Your task to perform on an android device: turn off javascript in the chrome app Image 0: 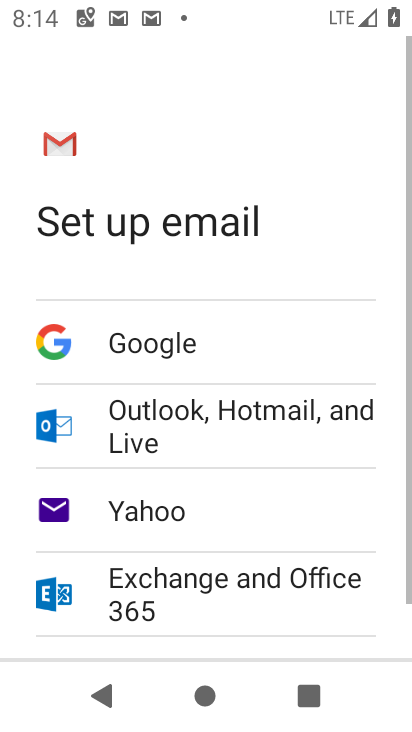
Step 0: press home button
Your task to perform on an android device: turn off javascript in the chrome app Image 1: 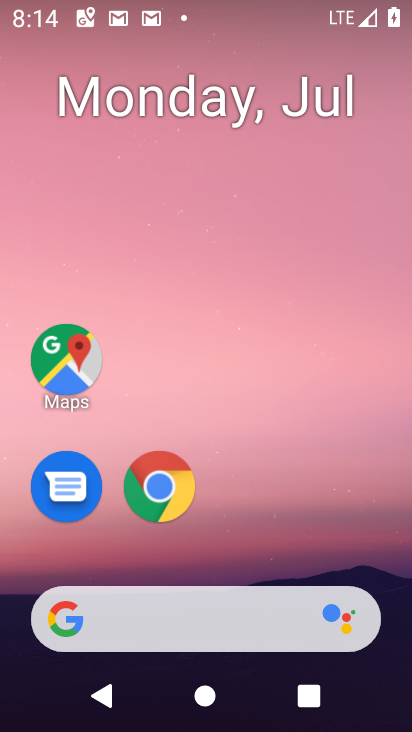
Step 1: drag from (373, 523) to (370, 92)
Your task to perform on an android device: turn off javascript in the chrome app Image 2: 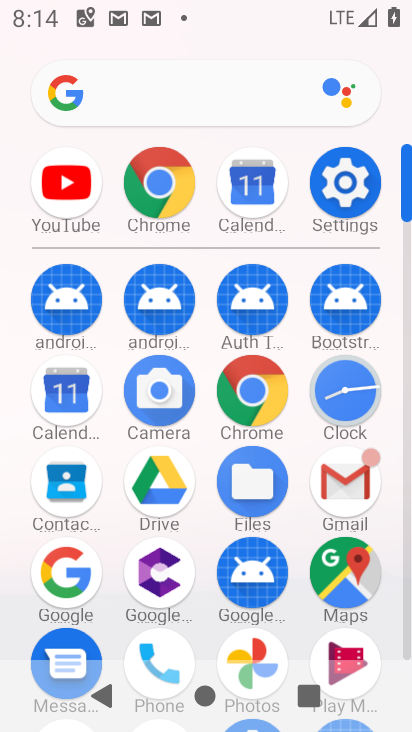
Step 2: click (256, 388)
Your task to perform on an android device: turn off javascript in the chrome app Image 3: 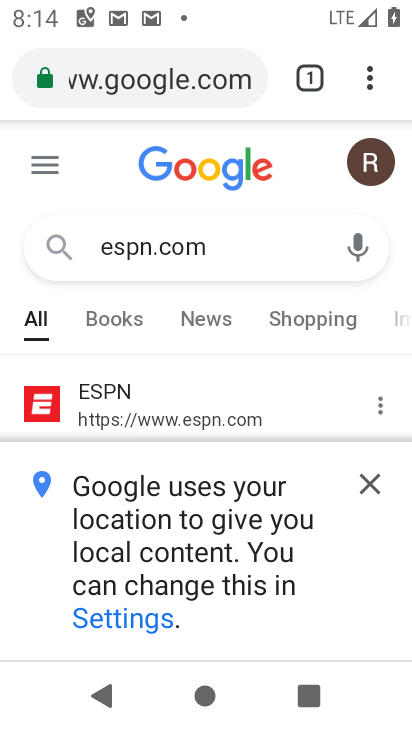
Step 3: click (370, 87)
Your task to perform on an android device: turn off javascript in the chrome app Image 4: 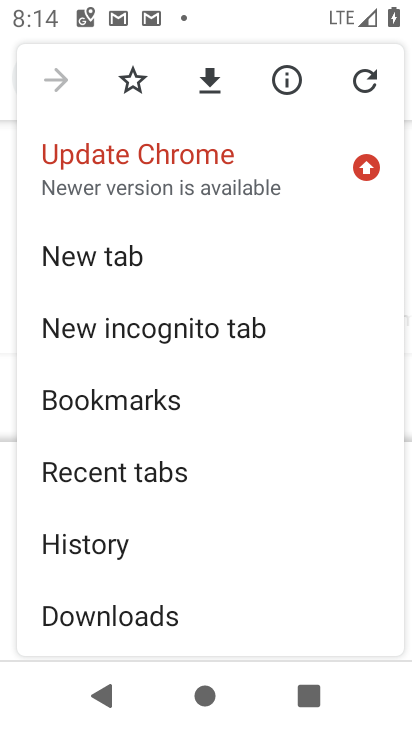
Step 4: drag from (309, 457) to (323, 379)
Your task to perform on an android device: turn off javascript in the chrome app Image 5: 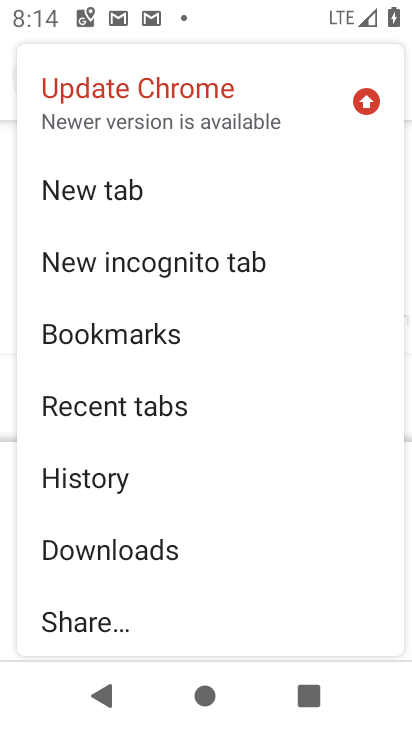
Step 5: drag from (311, 450) to (310, 325)
Your task to perform on an android device: turn off javascript in the chrome app Image 6: 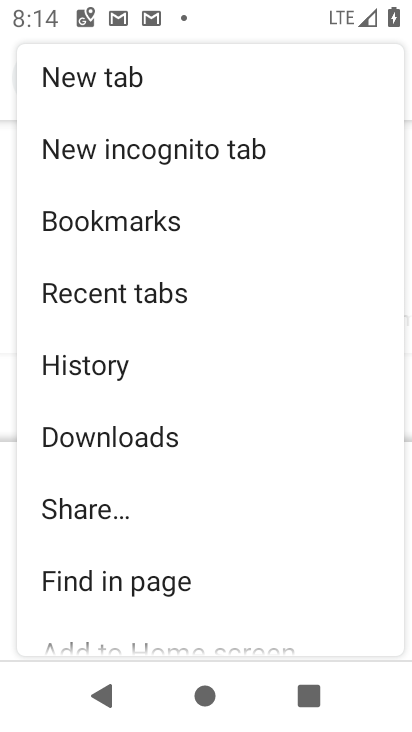
Step 6: drag from (307, 485) to (307, 329)
Your task to perform on an android device: turn off javascript in the chrome app Image 7: 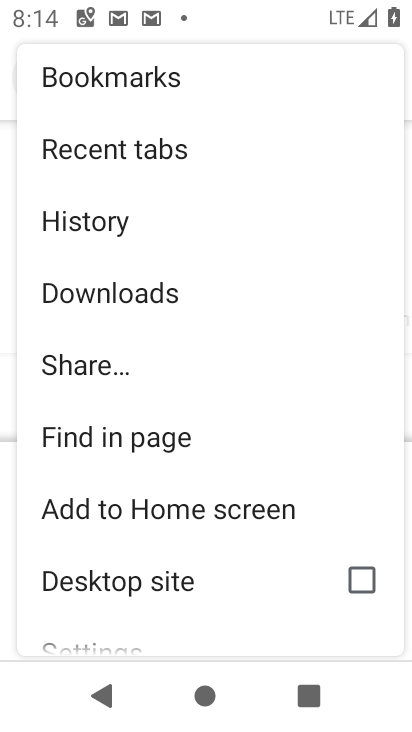
Step 7: drag from (305, 450) to (308, 293)
Your task to perform on an android device: turn off javascript in the chrome app Image 8: 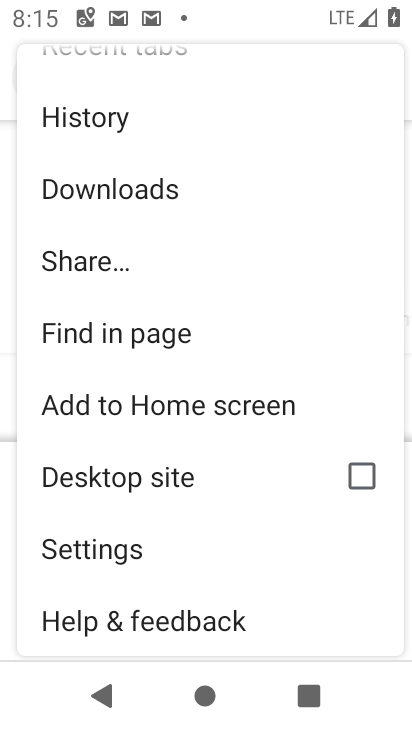
Step 8: click (231, 549)
Your task to perform on an android device: turn off javascript in the chrome app Image 9: 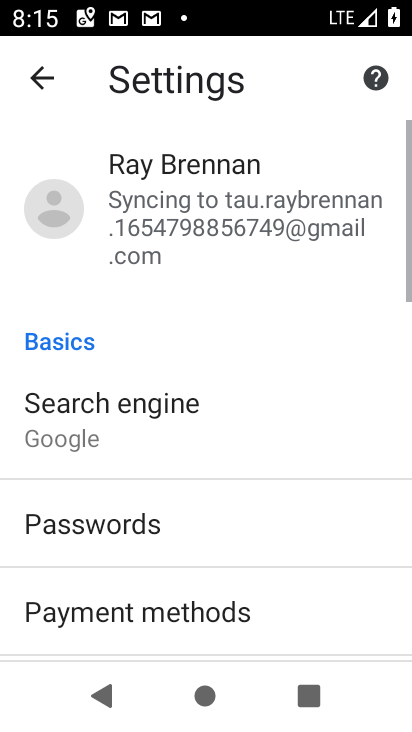
Step 9: drag from (306, 512) to (309, 409)
Your task to perform on an android device: turn off javascript in the chrome app Image 10: 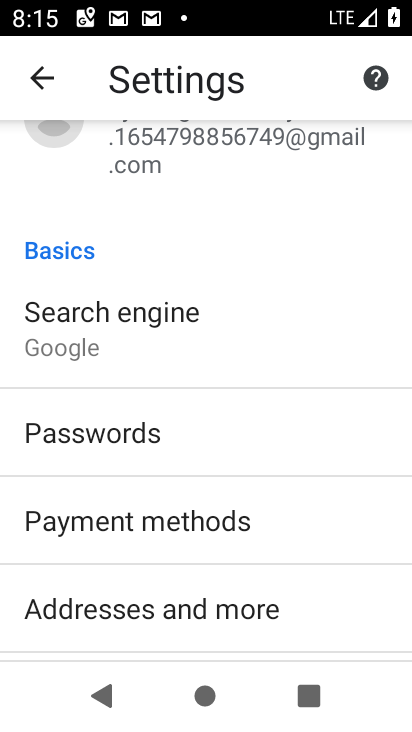
Step 10: drag from (309, 522) to (317, 441)
Your task to perform on an android device: turn off javascript in the chrome app Image 11: 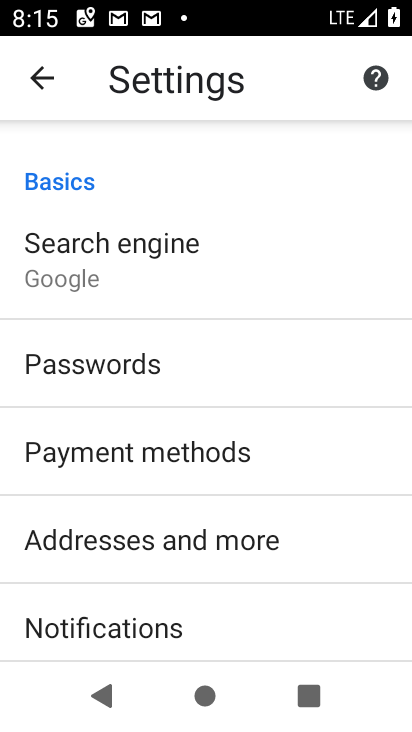
Step 11: drag from (325, 532) to (327, 451)
Your task to perform on an android device: turn off javascript in the chrome app Image 12: 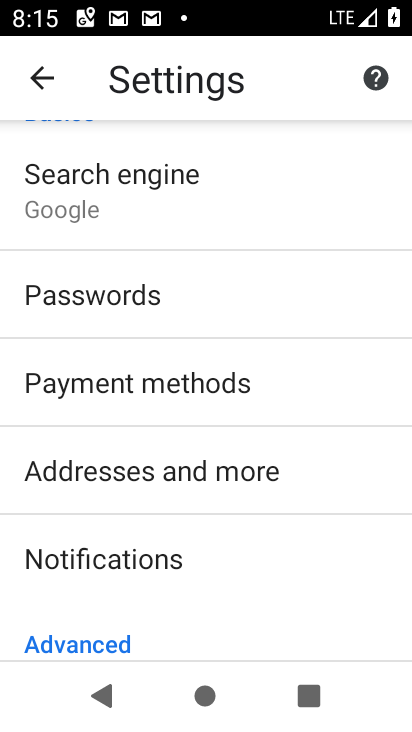
Step 12: drag from (330, 535) to (330, 444)
Your task to perform on an android device: turn off javascript in the chrome app Image 13: 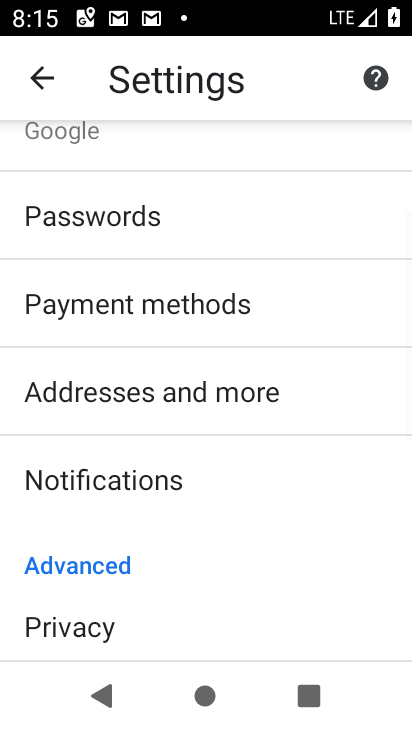
Step 13: drag from (321, 517) to (322, 332)
Your task to perform on an android device: turn off javascript in the chrome app Image 14: 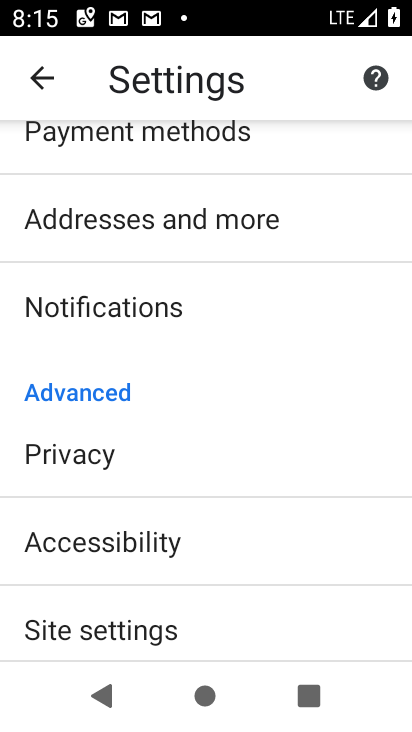
Step 14: drag from (322, 443) to (323, 258)
Your task to perform on an android device: turn off javascript in the chrome app Image 15: 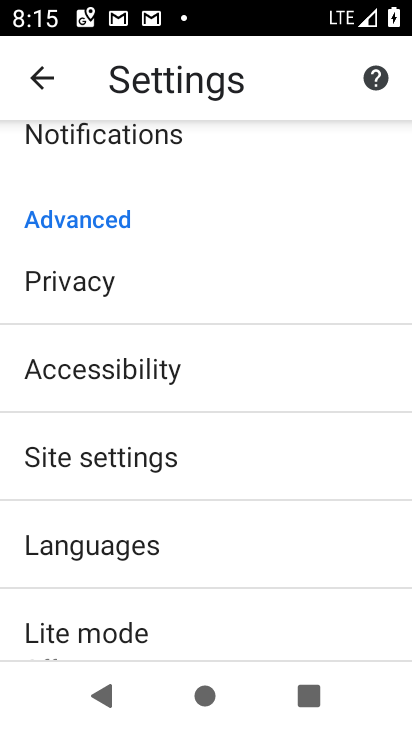
Step 15: click (324, 450)
Your task to perform on an android device: turn off javascript in the chrome app Image 16: 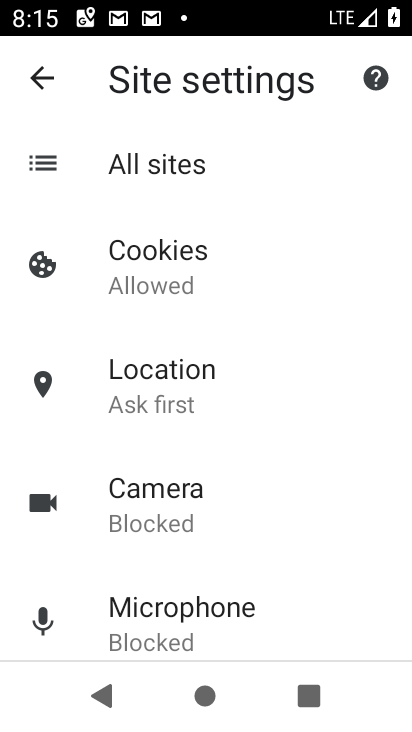
Step 16: drag from (324, 471) to (324, 389)
Your task to perform on an android device: turn off javascript in the chrome app Image 17: 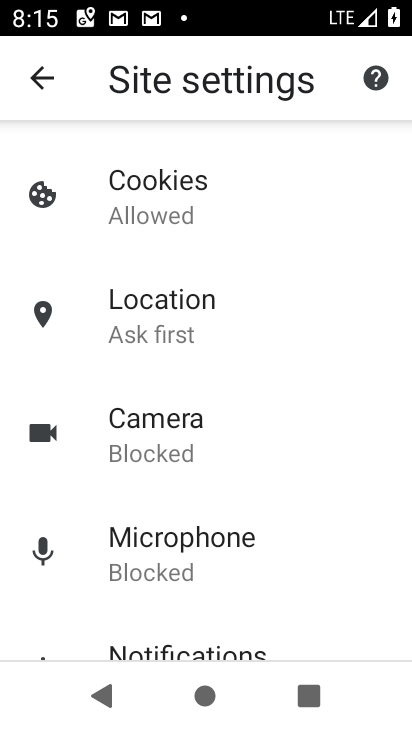
Step 17: drag from (325, 483) to (324, 393)
Your task to perform on an android device: turn off javascript in the chrome app Image 18: 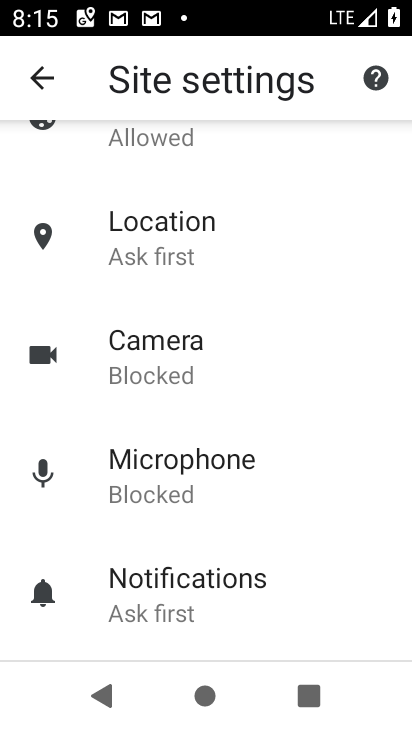
Step 18: drag from (311, 485) to (311, 376)
Your task to perform on an android device: turn off javascript in the chrome app Image 19: 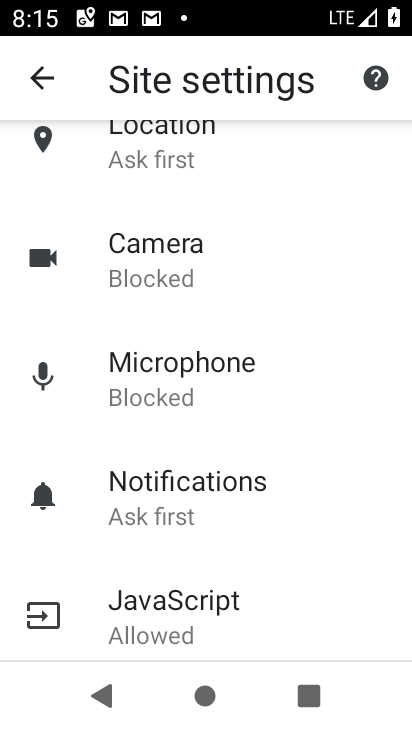
Step 19: drag from (304, 478) to (303, 371)
Your task to perform on an android device: turn off javascript in the chrome app Image 20: 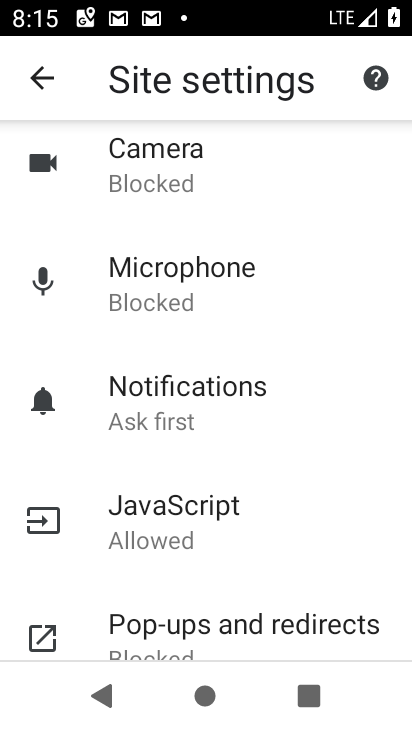
Step 20: drag from (302, 439) to (302, 337)
Your task to perform on an android device: turn off javascript in the chrome app Image 21: 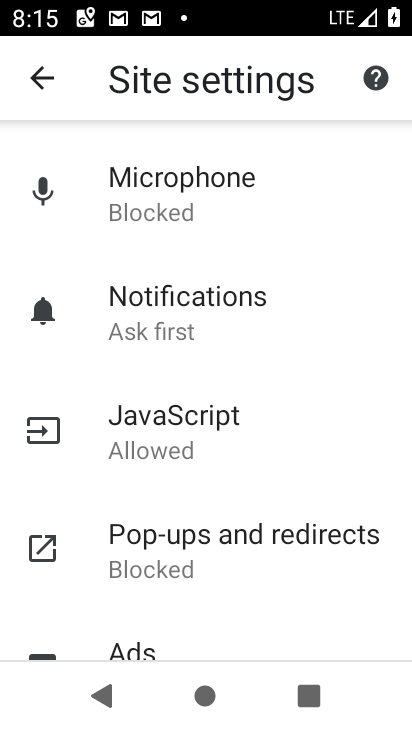
Step 21: click (280, 443)
Your task to perform on an android device: turn off javascript in the chrome app Image 22: 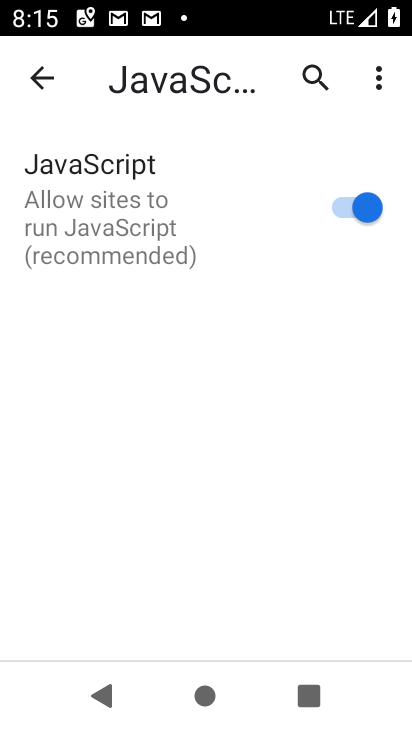
Step 22: click (360, 196)
Your task to perform on an android device: turn off javascript in the chrome app Image 23: 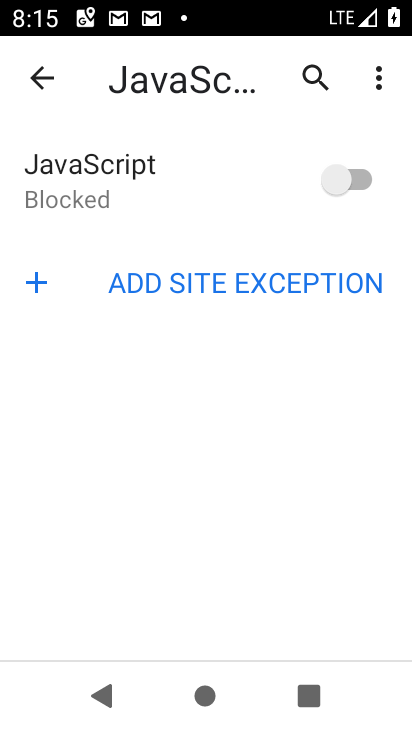
Step 23: task complete